Your task to perform on an android device: toggle show notifications on the lock screen Image 0: 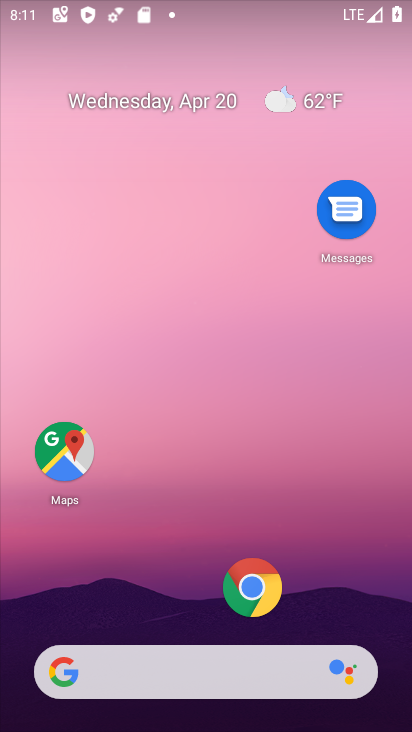
Step 0: press home button
Your task to perform on an android device: toggle show notifications on the lock screen Image 1: 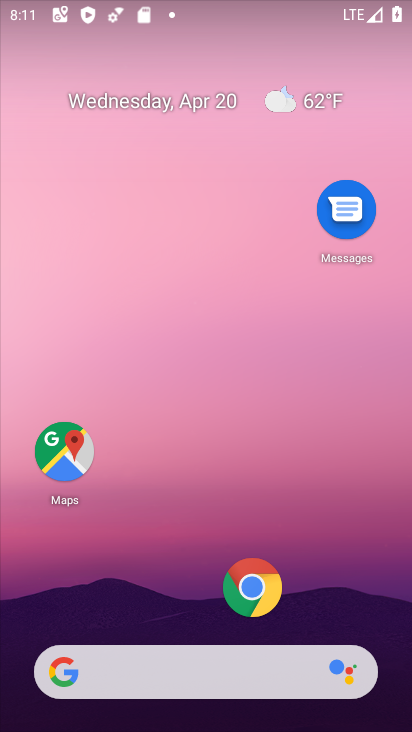
Step 1: drag from (165, 674) to (299, 77)
Your task to perform on an android device: toggle show notifications on the lock screen Image 2: 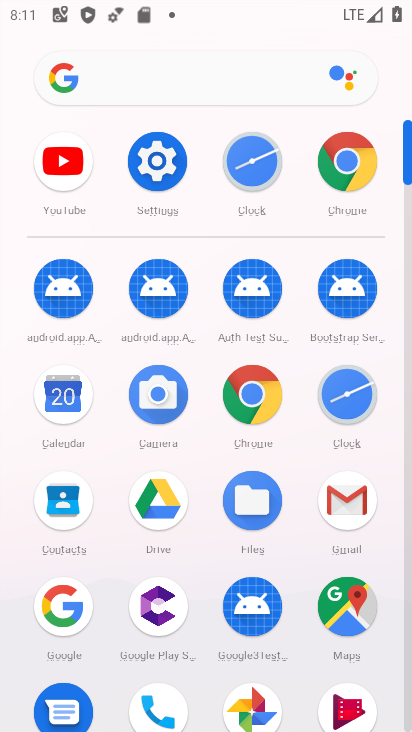
Step 2: click (155, 171)
Your task to perform on an android device: toggle show notifications on the lock screen Image 3: 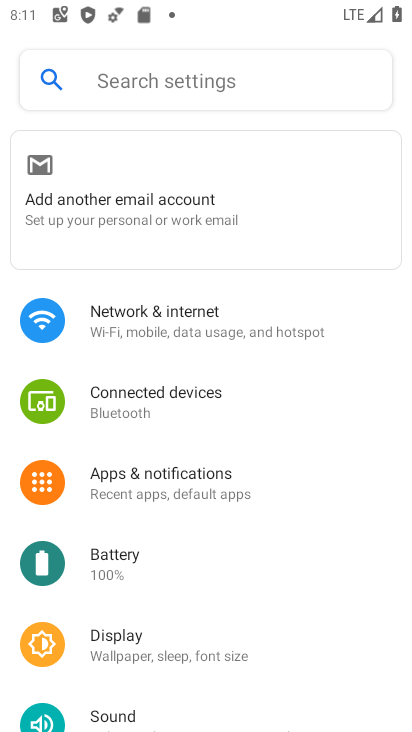
Step 3: click (184, 484)
Your task to perform on an android device: toggle show notifications on the lock screen Image 4: 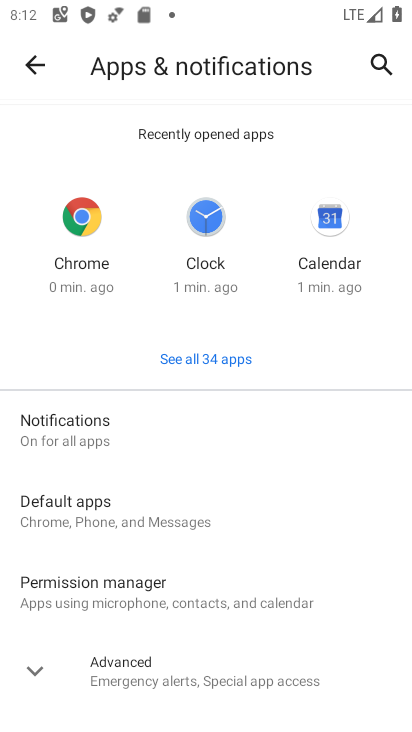
Step 4: drag from (169, 640) to (251, 377)
Your task to perform on an android device: toggle show notifications on the lock screen Image 5: 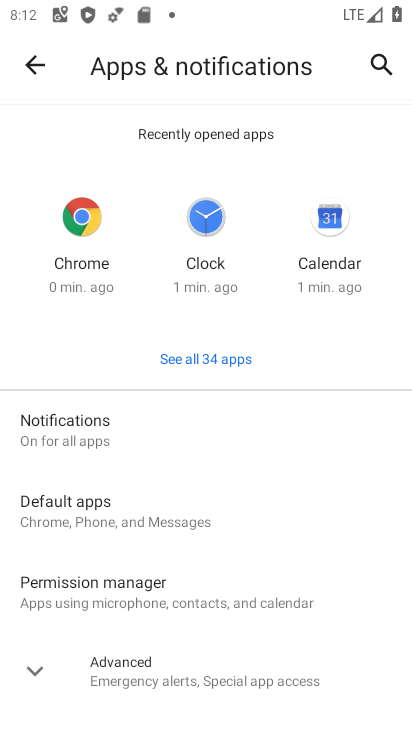
Step 5: click (77, 427)
Your task to perform on an android device: toggle show notifications on the lock screen Image 6: 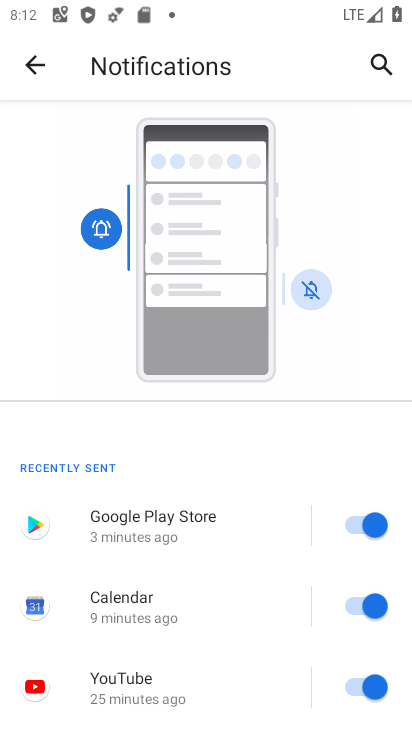
Step 6: drag from (208, 681) to (364, 240)
Your task to perform on an android device: toggle show notifications on the lock screen Image 7: 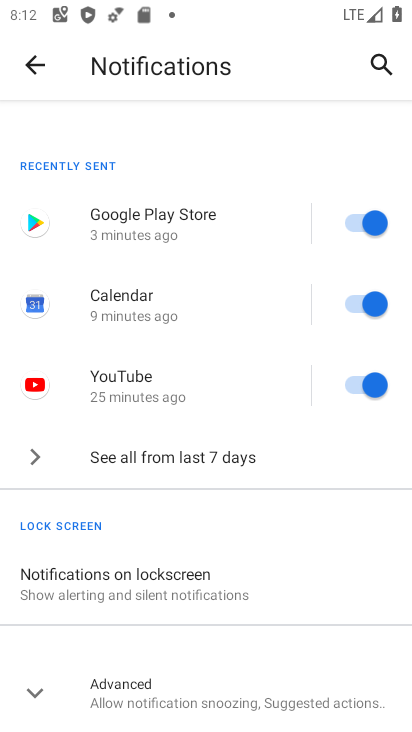
Step 7: click (100, 577)
Your task to perform on an android device: toggle show notifications on the lock screen Image 8: 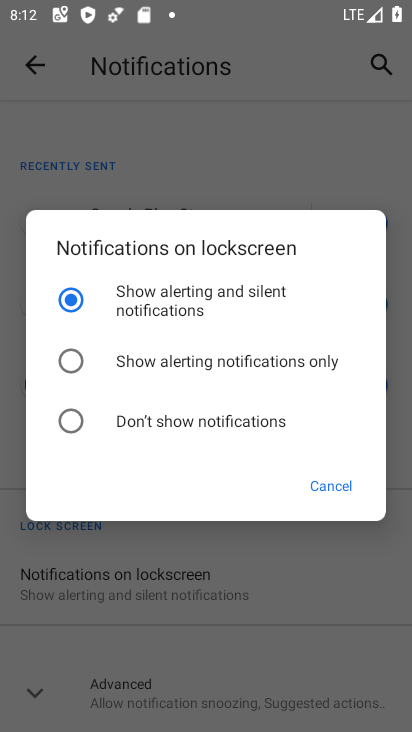
Step 8: click (75, 425)
Your task to perform on an android device: toggle show notifications on the lock screen Image 9: 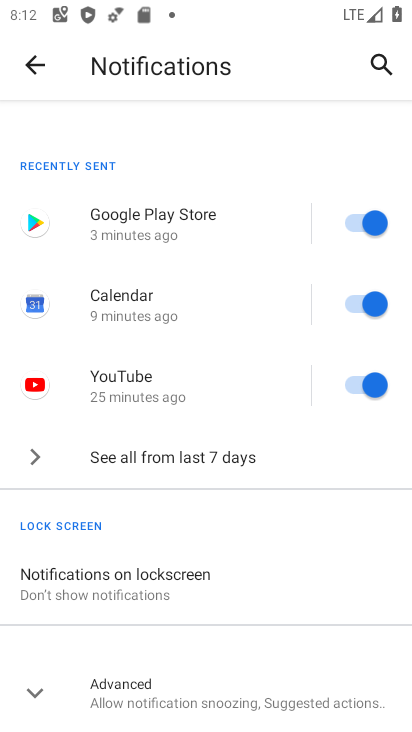
Step 9: task complete